Your task to perform on an android device: turn pop-ups off in chrome Image 0: 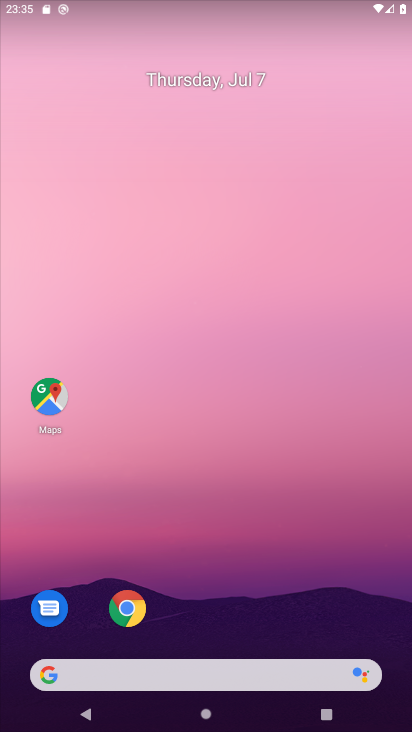
Step 0: drag from (293, 643) to (262, 189)
Your task to perform on an android device: turn pop-ups off in chrome Image 1: 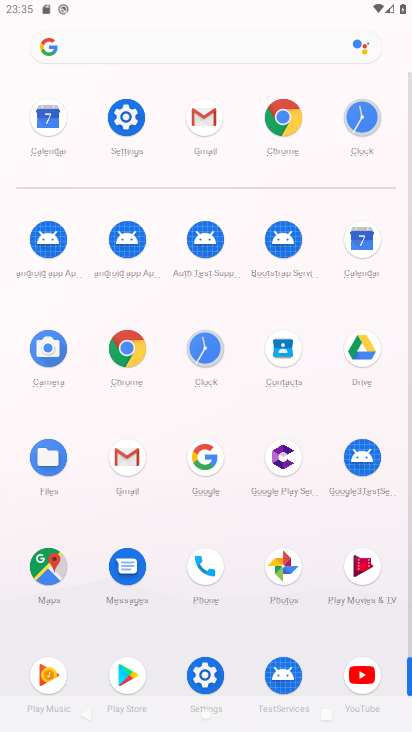
Step 1: click (283, 108)
Your task to perform on an android device: turn pop-ups off in chrome Image 2: 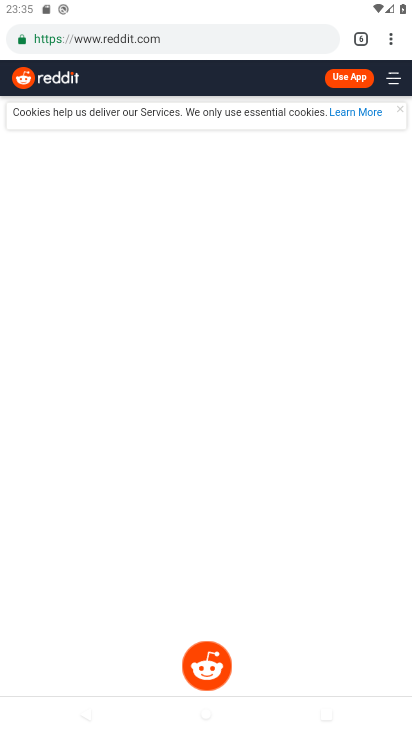
Step 2: click (388, 42)
Your task to perform on an android device: turn pop-ups off in chrome Image 3: 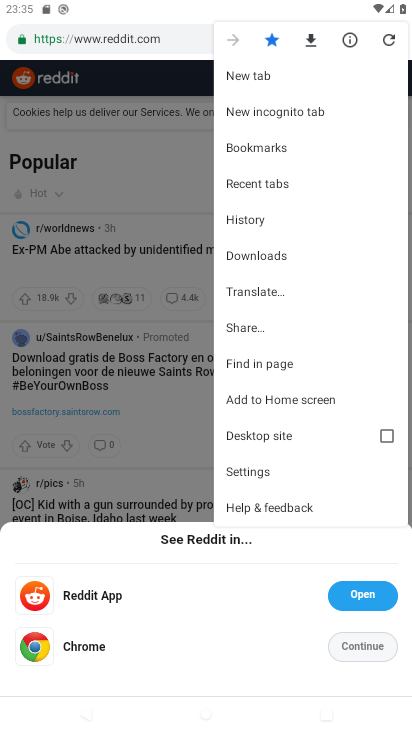
Step 3: click (267, 465)
Your task to perform on an android device: turn pop-ups off in chrome Image 4: 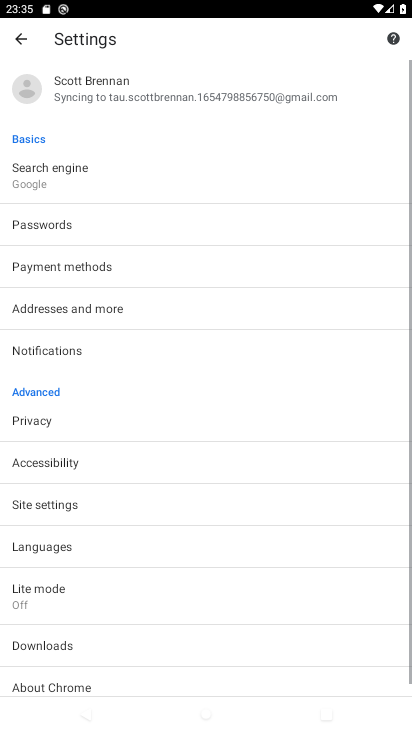
Step 4: drag from (196, 582) to (206, 317)
Your task to perform on an android device: turn pop-ups off in chrome Image 5: 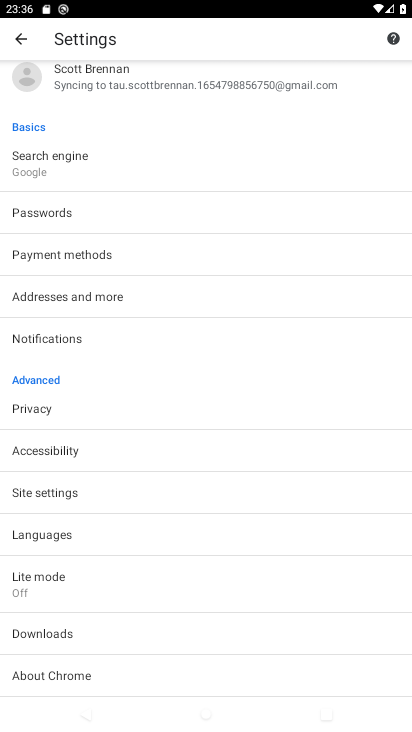
Step 5: click (76, 498)
Your task to perform on an android device: turn pop-ups off in chrome Image 6: 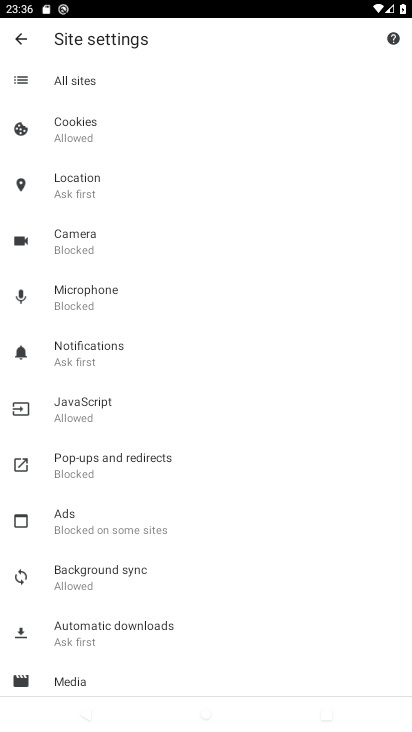
Step 6: click (122, 468)
Your task to perform on an android device: turn pop-ups off in chrome Image 7: 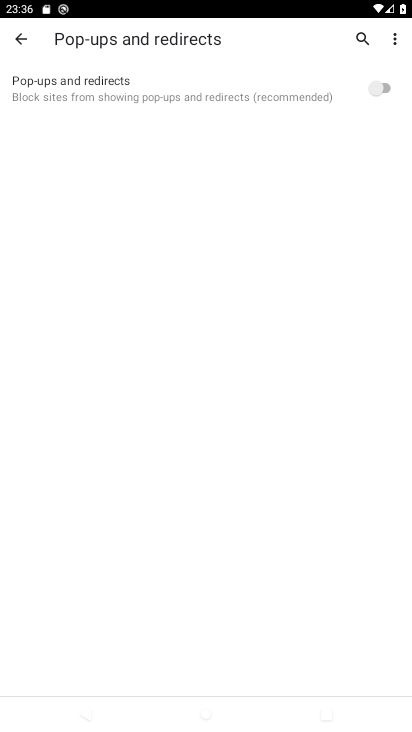
Step 7: task complete